Your task to perform on an android device: Turn off the flashlight Image 0: 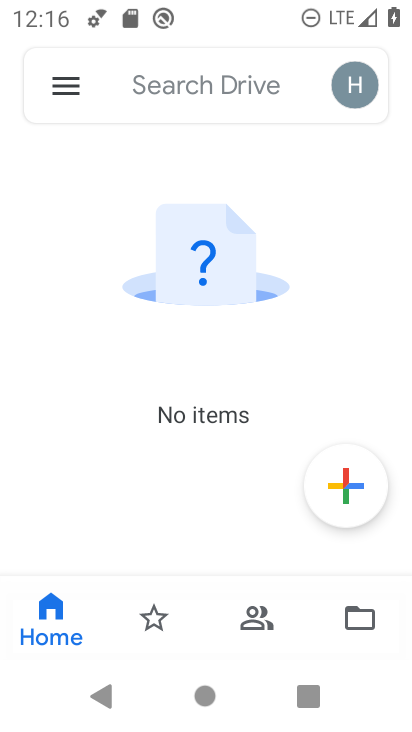
Step 0: press home button
Your task to perform on an android device: Turn off the flashlight Image 1: 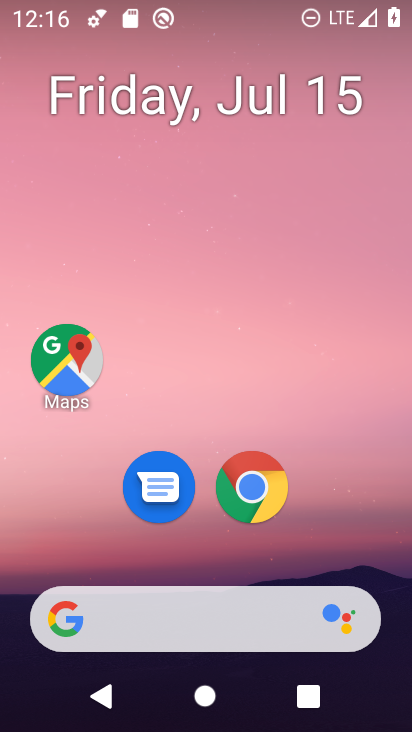
Step 1: drag from (216, 618) to (196, 90)
Your task to perform on an android device: Turn off the flashlight Image 2: 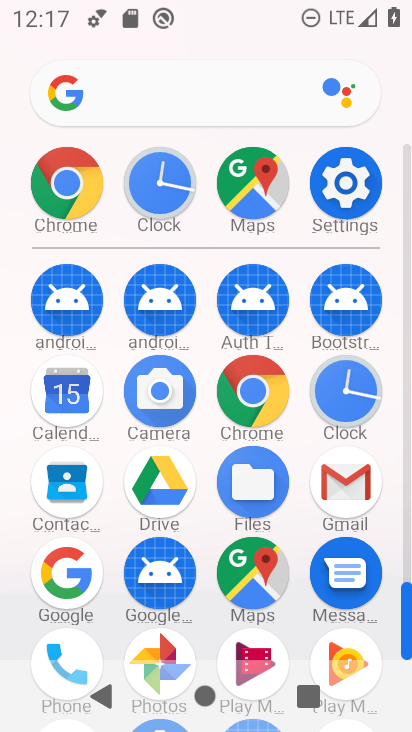
Step 2: click (350, 395)
Your task to perform on an android device: Turn off the flashlight Image 3: 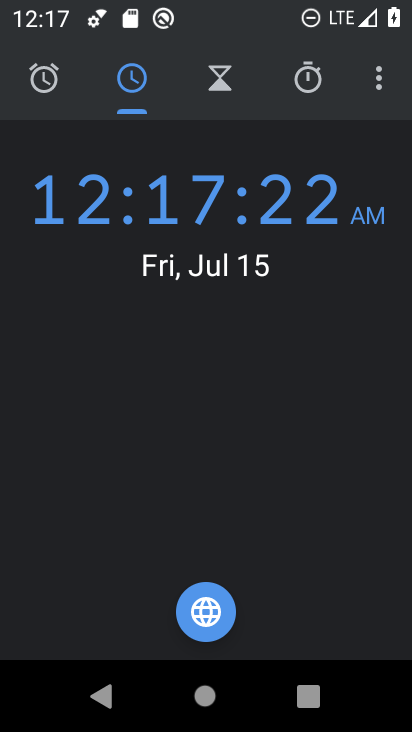
Step 3: click (379, 88)
Your task to perform on an android device: Turn off the flashlight Image 4: 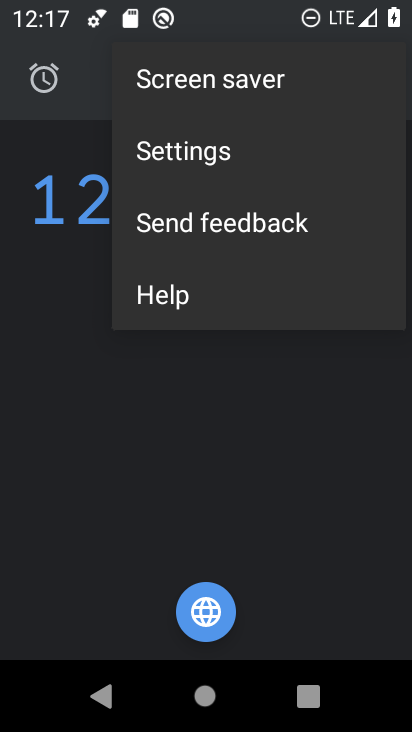
Step 4: task complete